Your task to perform on an android device: change notifications settings Image 0: 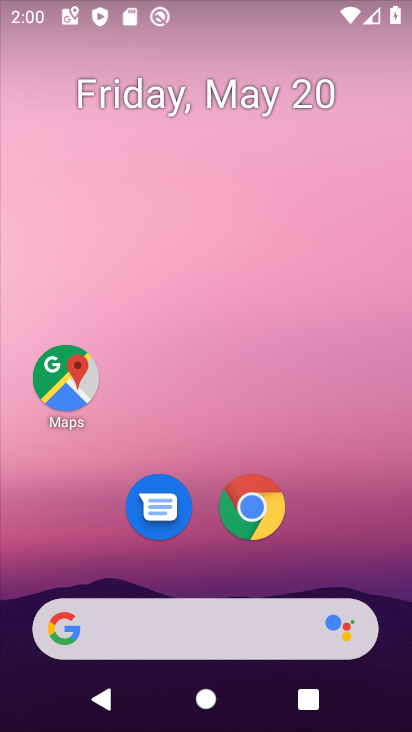
Step 0: drag from (240, 711) to (233, 225)
Your task to perform on an android device: change notifications settings Image 1: 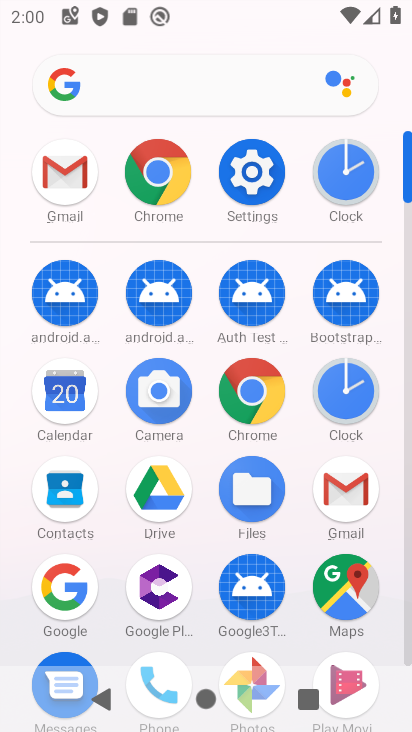
Step 1: click (248, 164)
Your task to perform on an android device: change notifications settings Image 2: 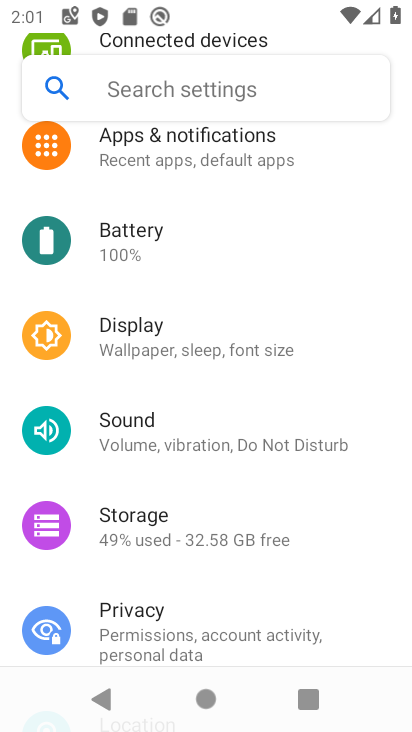
Step 2: drag from (169, 599) to (177, 562)
Your task to perform on an android device: change notifications settings Image 3: 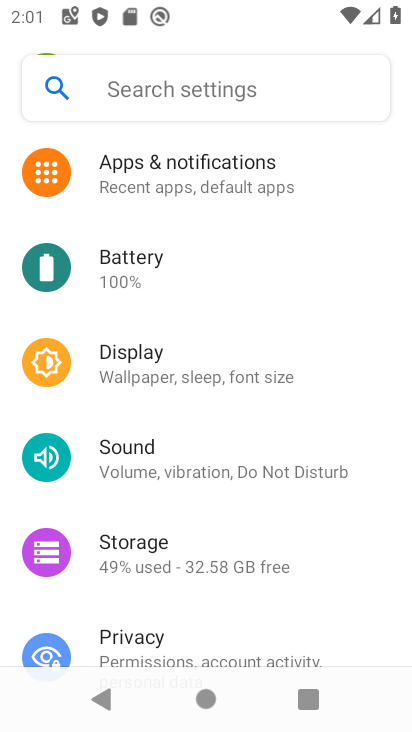
Step 3: click (205, 169)
Your task to perform on an android device: change notifications settings Image 4: 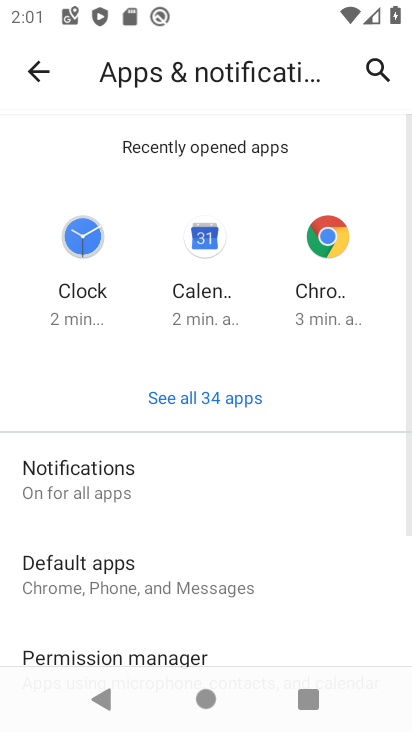
Step 4: click (90, 478)
Your task to perform on an android device: change notifications settings Image 5: 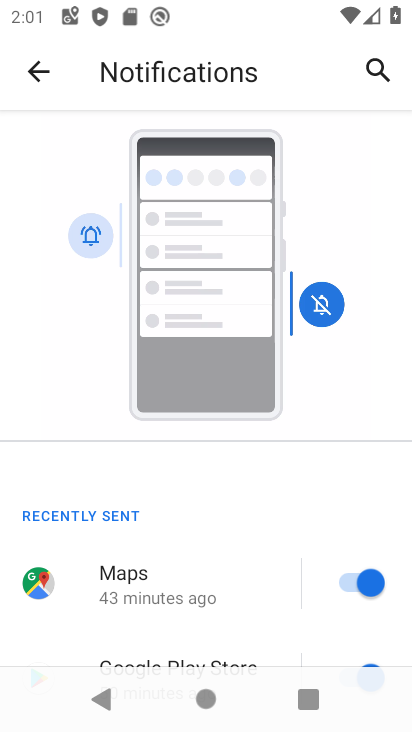
Step 5: drag from (166, 602) to (170, 203)
Your task to perform on an android device: change notifications settings Image 6: 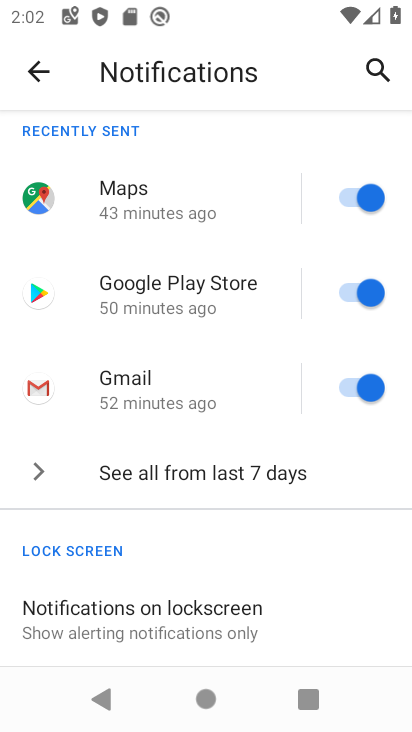
Step 6: drag from (178, 597) to (182, 236)
Your task to perform on an android device: change notifications settings Image 7: 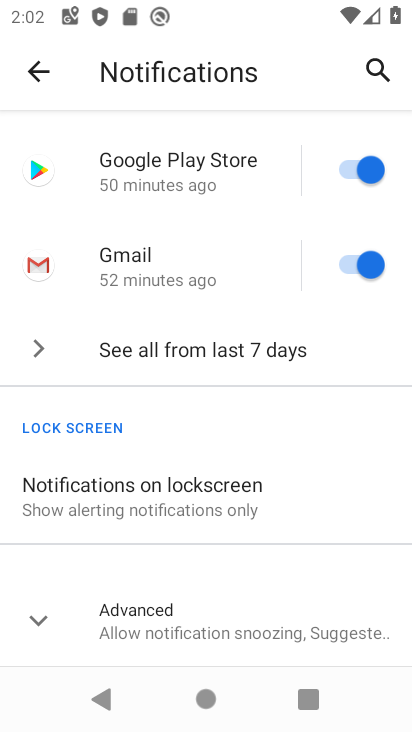
Step 7: click (174, 625)
Your task to perform on an android device: change notifications settings Image 8: 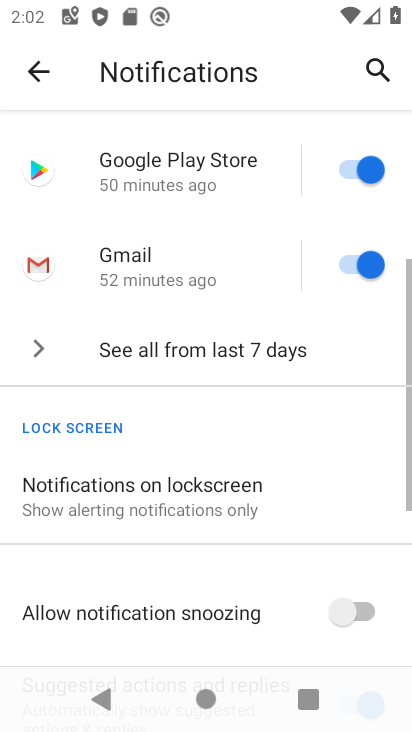
Step 8: drag from (198, 590) to (206, 212)
Your task to perform on an android device: change notifications settings Image 9: 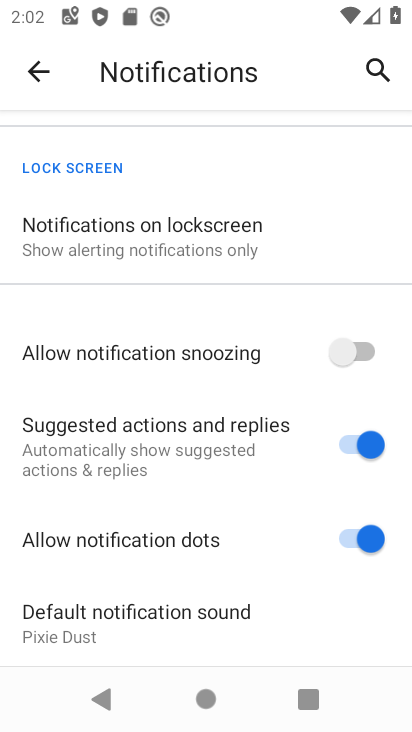
Step 9: click (363, 347)
Your task to perform on an android device: change notifications settings Image 10: 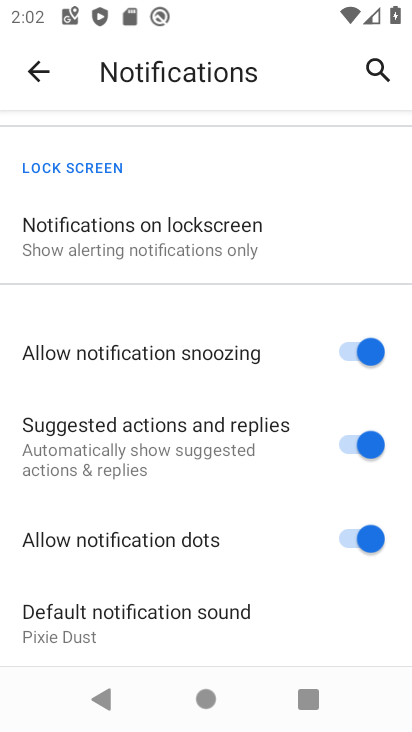
Step 10: task complete